Your task to perform on an android device: Open Google Maps and go to "Timeline" Image 0: 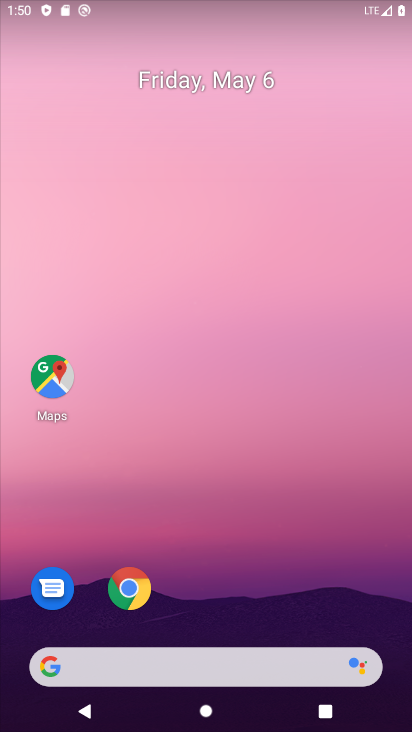
Step 0: press home button
Your task to perform on an android device: Open Google Maps and go to "Timeline" Image 1: 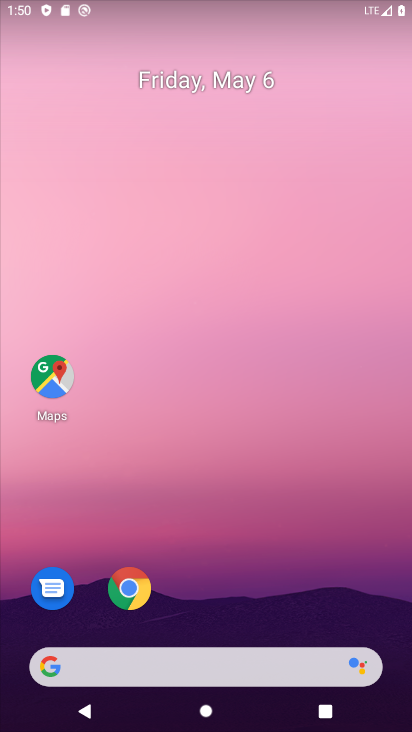
Step 1: drag from (363, 594) to (334, 219)
Your task to perform on an android device: Open Google Maps and go to "Timeline" Image 2: 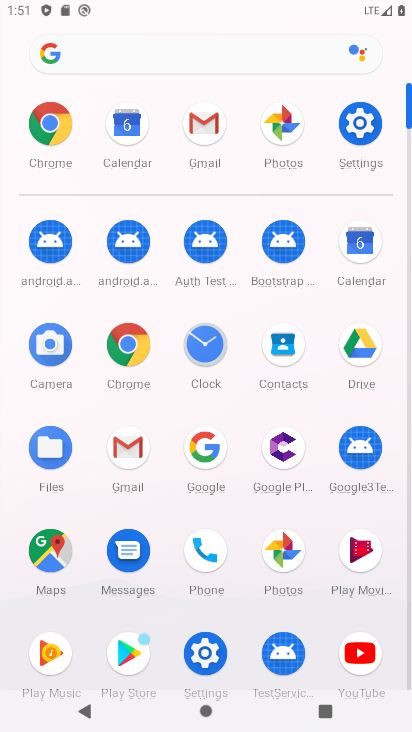
Step 2: click (46, 560)
Your task to perform on an android device: Open Google Maps and go to "Timeline" Image 3: 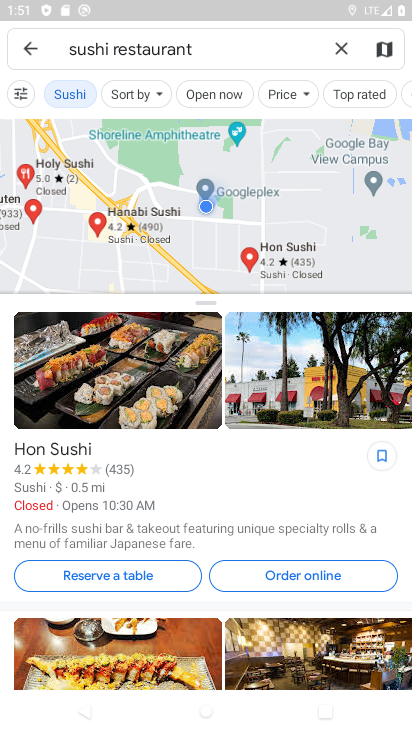
Step 3: click (342, 46)
Your task to perform on an android device: Open Google Maps and go to "Timeline" Image 4: 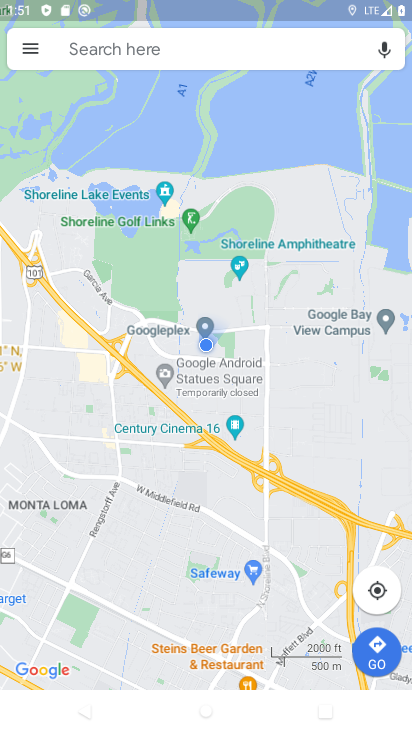
Step 4: click (41, 41)
Your task to perform on an android device: Open Google Maps and go to "Timeline" Image 5: 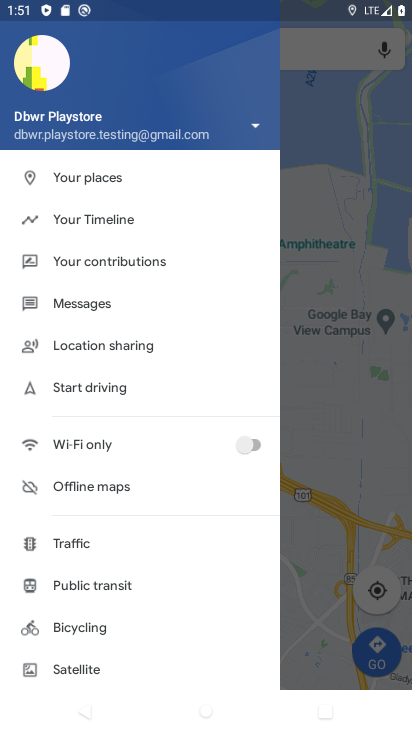
Step 5: click (70, 227)
Your task to perform on an android device: Open Google Maps and go to "Timeline" Image 6: 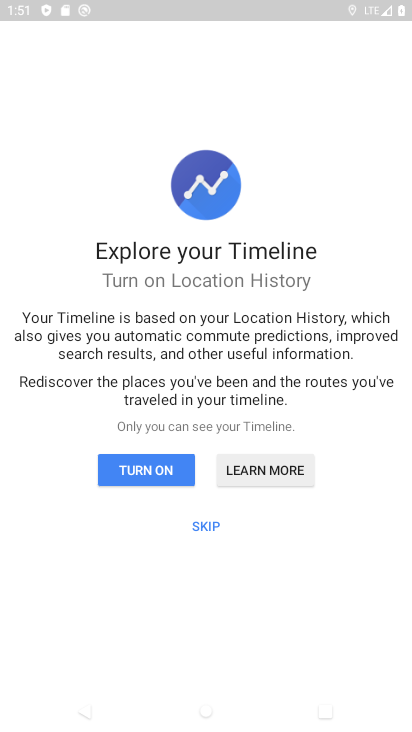
Step 6: click (216, 519)
Your task to perform on an android device: Open Google Maps and go to "Timeline" Image 7: 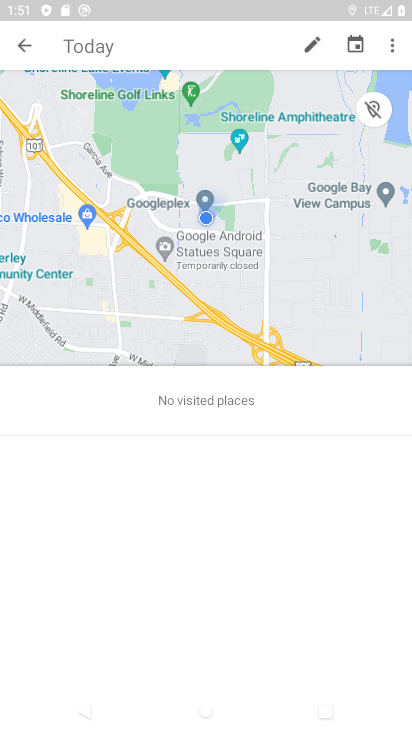
Step 7: task complete